Your task to perform on an android device: visit the assistant section in the google photos Image 0: 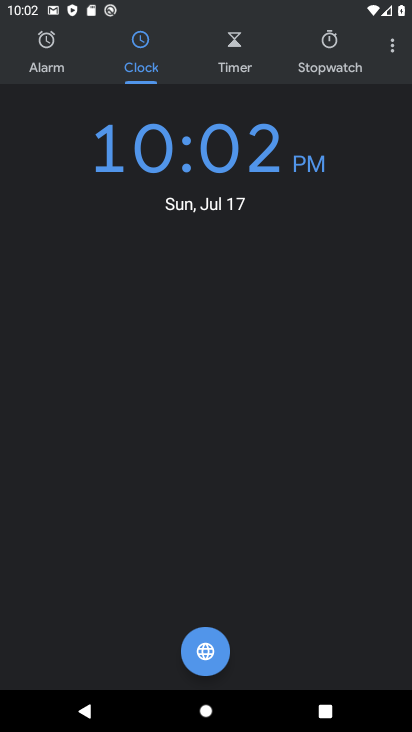
Step 0: press home button
Your task to perform on an android device: visit the assistant section in the google photos Image 1: 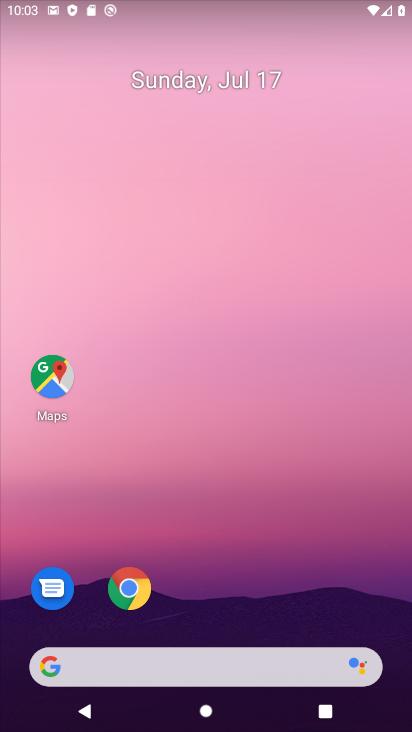
Step 1: drag from (214, 589) to (208, 0)
Your task to perform on an android device: visit the assistant section in the google photos Image 2: 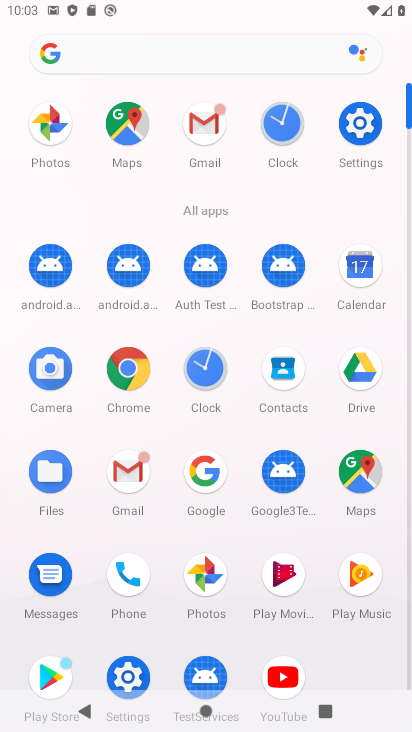
Step 2: click (214, 579)
Your task to perform on an android device: visit the assistant section in the google photos Image 3: 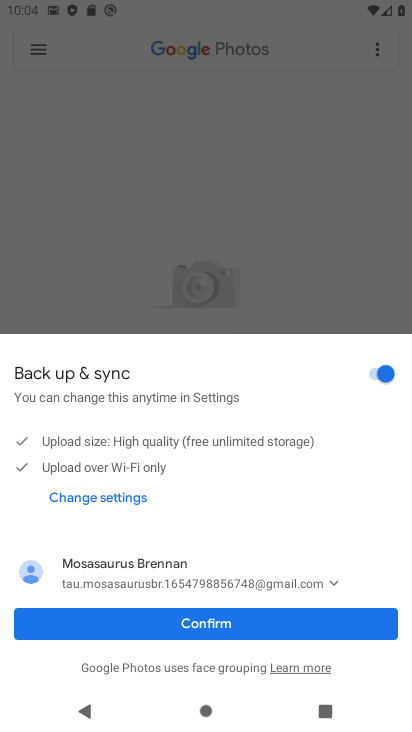
Step 3: click (178, 615)
Your task to perform on an android device: visit the assistant section in the google photos Image 4: 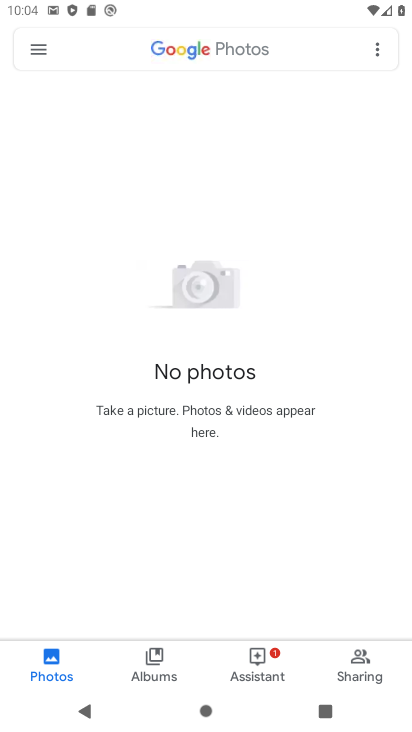
Step 4: click (241, 676)
Your task to perform on an android device: visit the assistant section in the google photos Image 5: 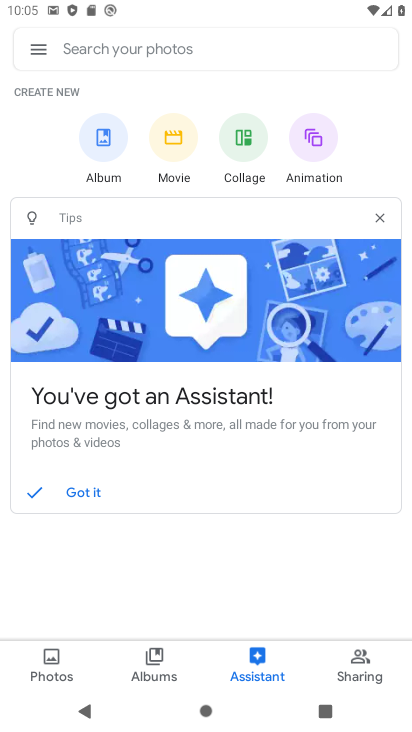
Step 5: task complete